Your task to perform on an android device: toggle pop-ups in chrome Image 0: 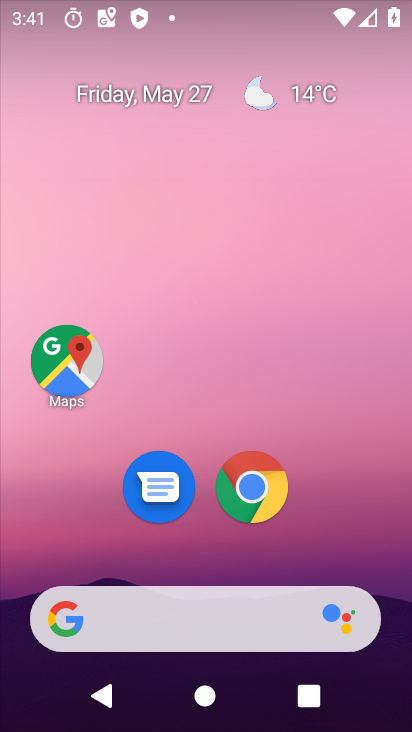
Step 0: drag from (310, 524) to (296, 44)
Your task to perform on an android device: toggle pop-ups in chrome Image 1: 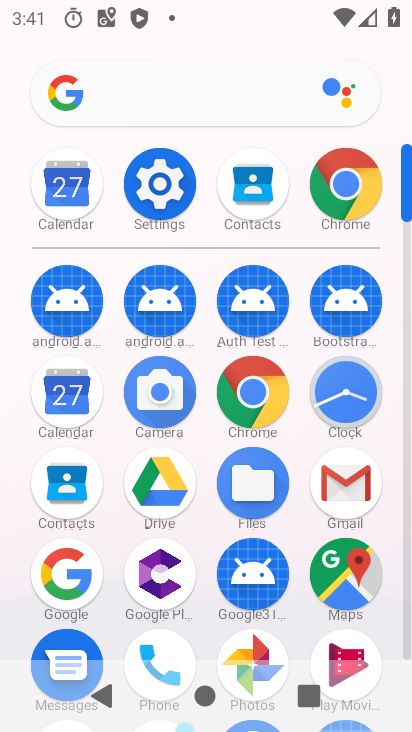
Step 1: click (245, 392)
Your task to perform on an android device: toggle pop-ups in chrome Image 2: 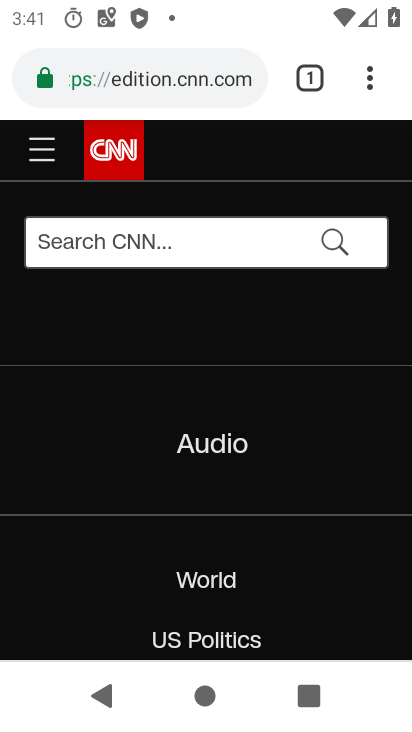
Step 2: drag from (374, 77) to (216, 548)
Your task to perform on an android device: toggle pop-ups in chrome Image 3: 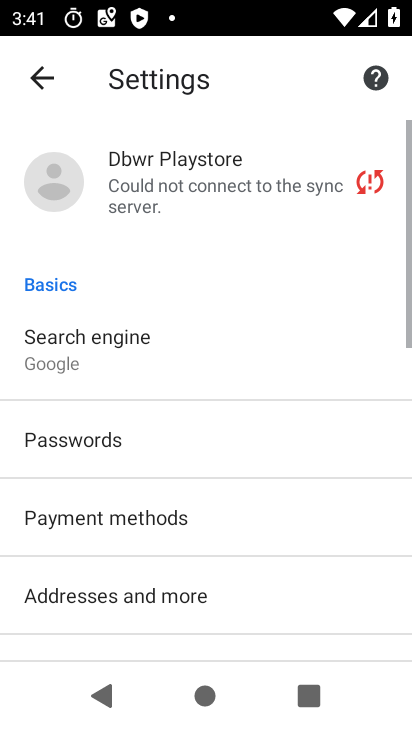
Step 3: drag from (224, 550) to (276, 30)
Your task to perform on an android device: toggle pop-ups in chrome Image 4: 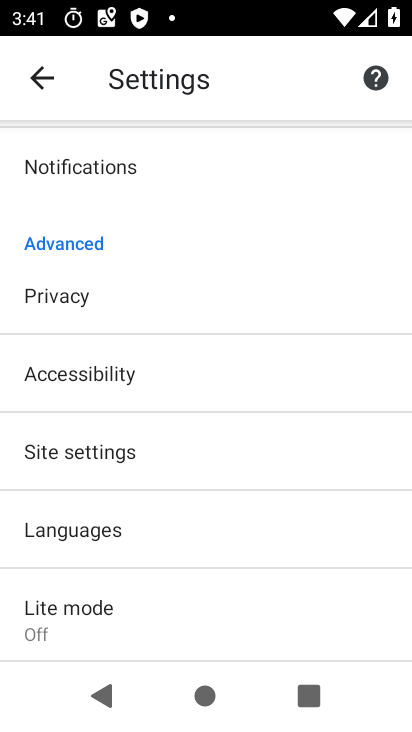
Step 4: click (144, 462)
Your task to perform on an android device: toggle pop-ups in chrome Image 5: 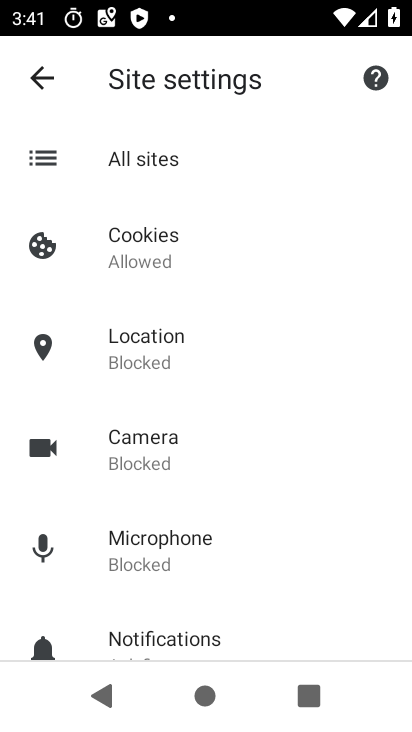
Step 5: drag from (254, 594) to (287, 96)
Your task to perform on an android device: toggle pop-ups in chrome Image 6: 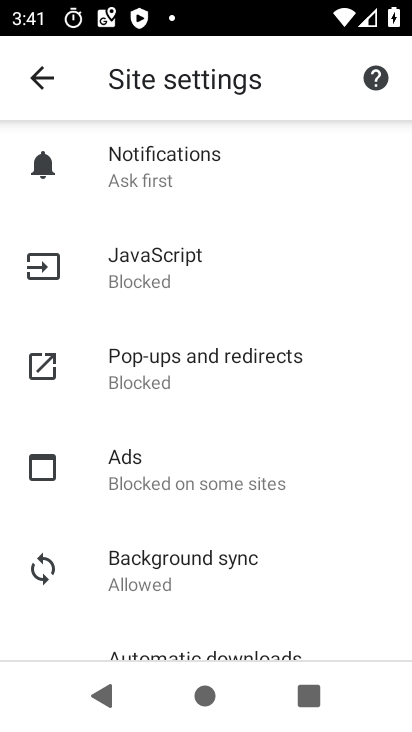
Step 6: click (196, 366)
Your task to perform on an android device: toggle pop-ups in chrome Image 7: 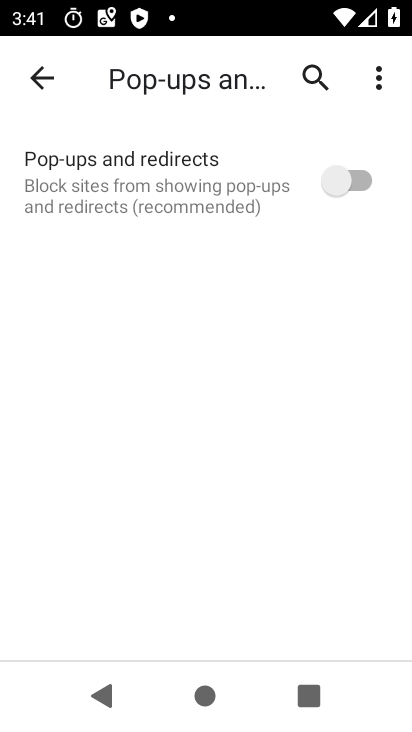
Step 7: click (346, 166)
Your task to perform on an android device: toggle pop-ups in chrome Image 8: 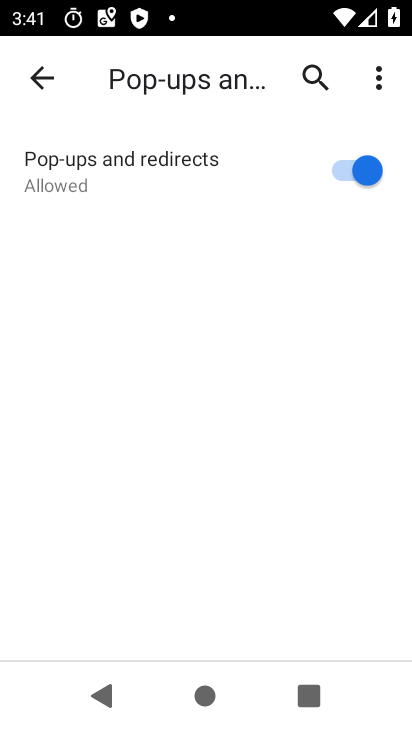
Step 8: task complete